Your task to perform on an android device: install app "Adobe Acrobat Reader" Image 0: 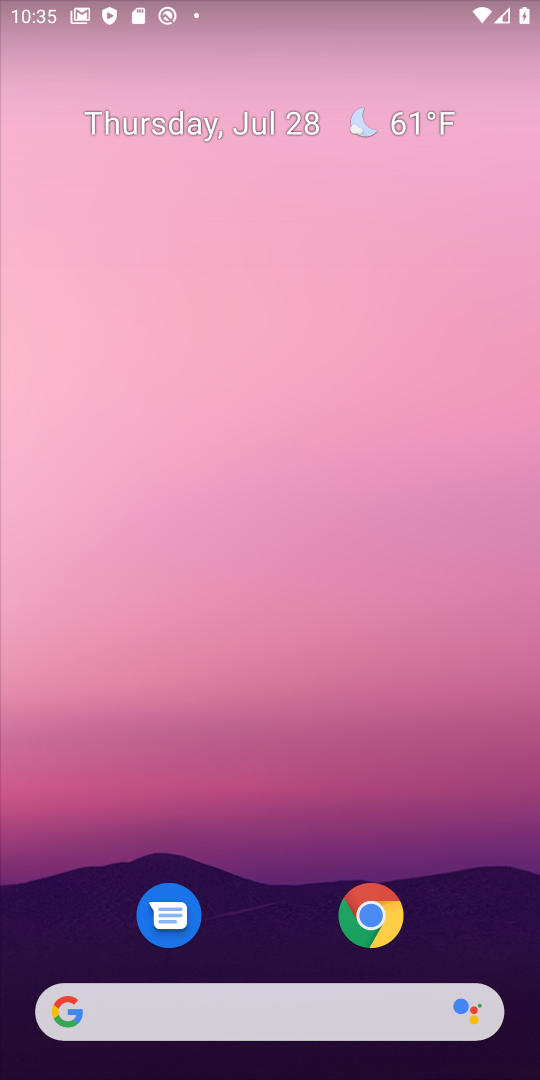
Step 0: press home button
Your task to perform on an android device: install app "Adobe Acrobat Reader" Image 1: 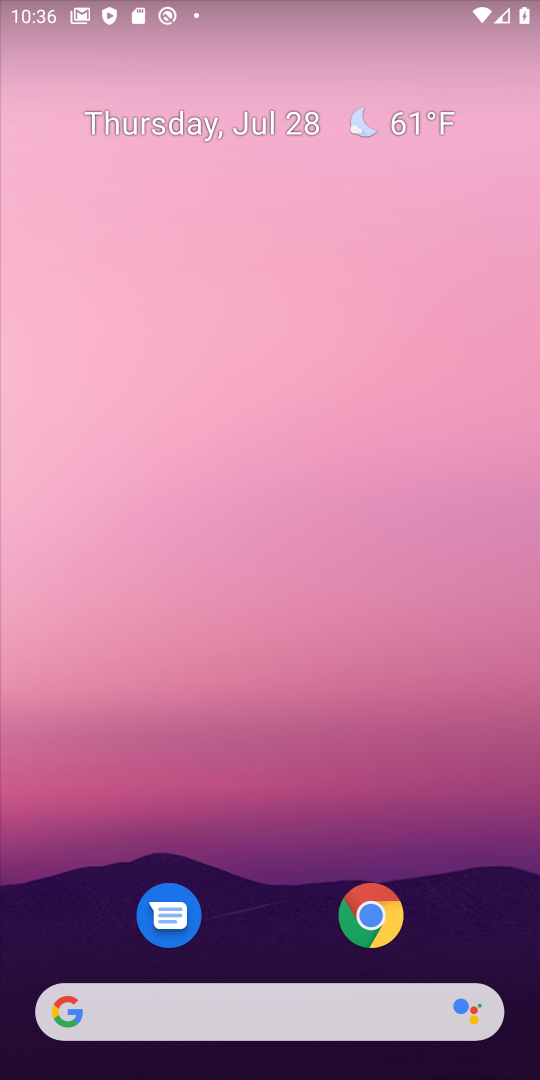
Step 1: drag from (480, 966) to (143, 146)
Your task to perform on an android device: install app "Adobe Acrobat Reader" Image 2: 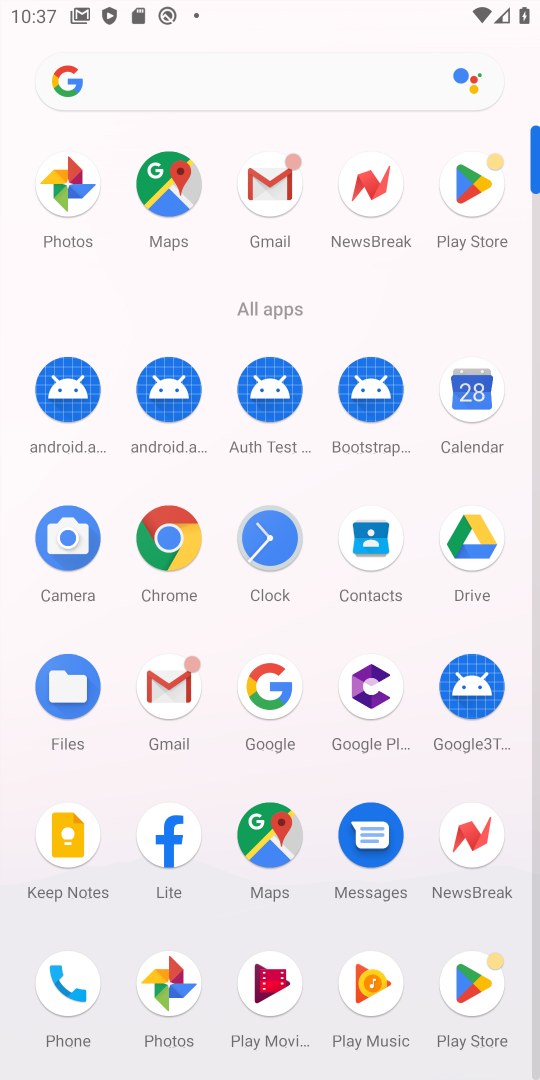
Step 2: click (493, 970)
Your task to perform on an android device: install app "Adobe Acrobat Reader" Image 3: 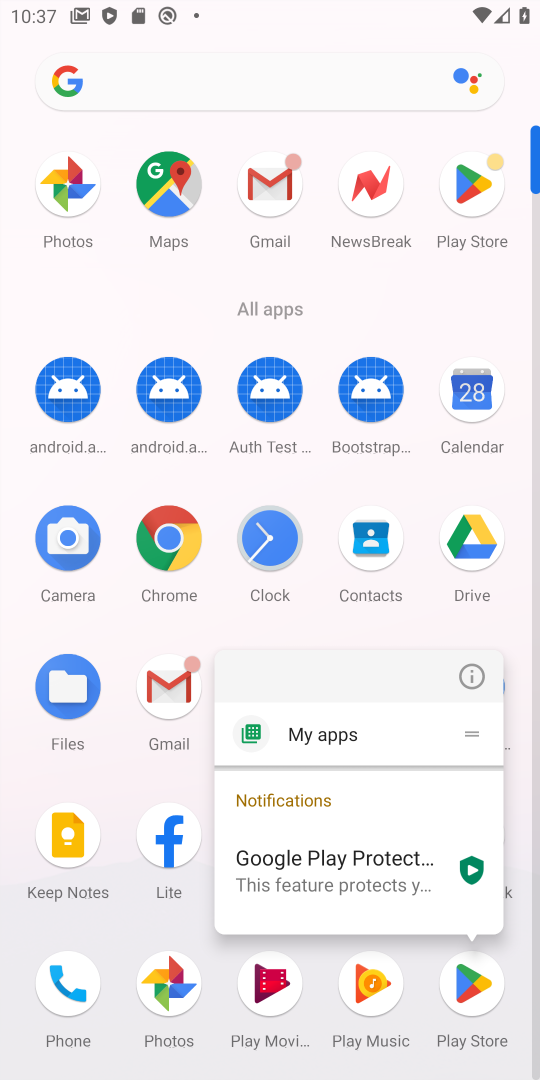
Step 3: click (472, 200)
Your task to perform on an android device: install app "Adobe Acrobat Reader" Image 4: 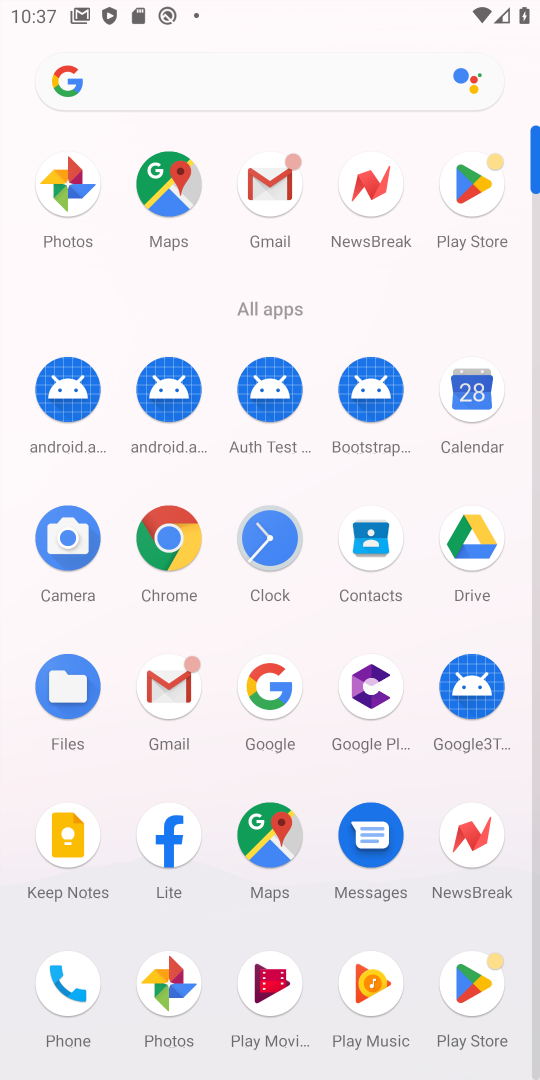
Step 4: click (472, 200)
Your task to perform on an android device: install app "Adobe Acrobat Reader" Image 5: 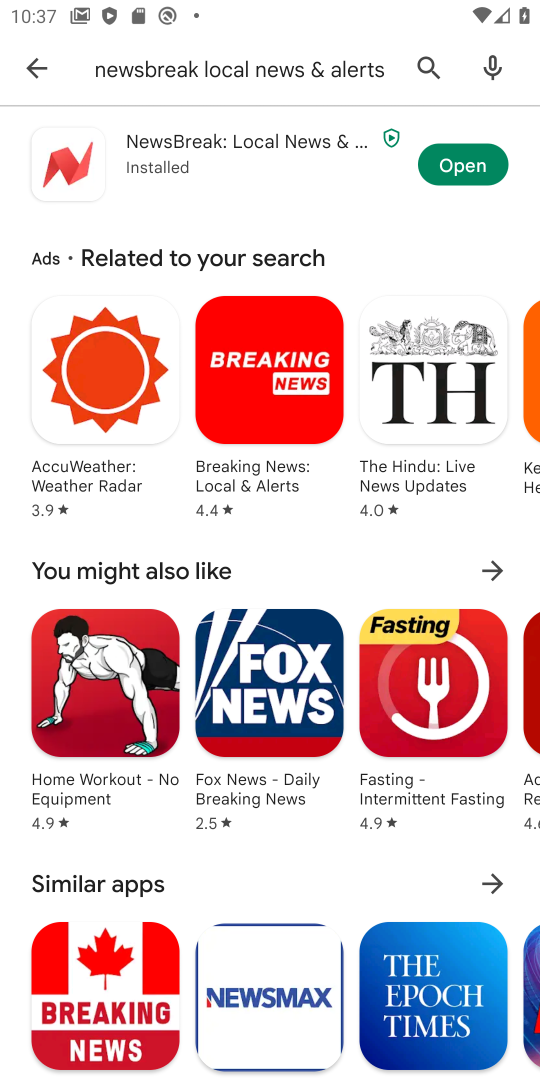
Step 5: click (431, 69)
Your task to perform on an android device: install app "Adobe Acrobat Reader" Image 6: 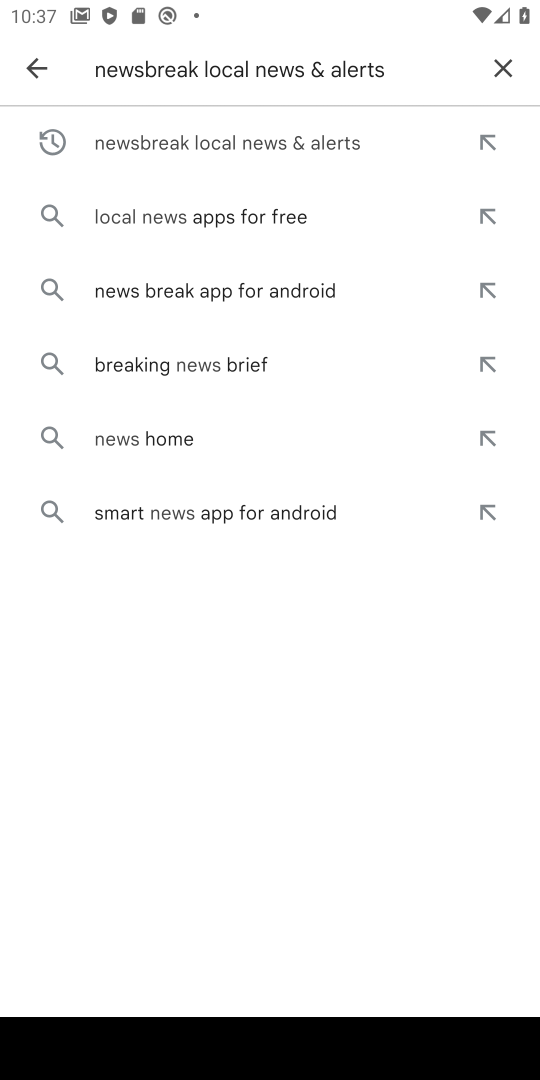
Step 6: click (512, 64)
Your task to perform on an android device: install app "Adobe Acrobat Reader" Image 7: 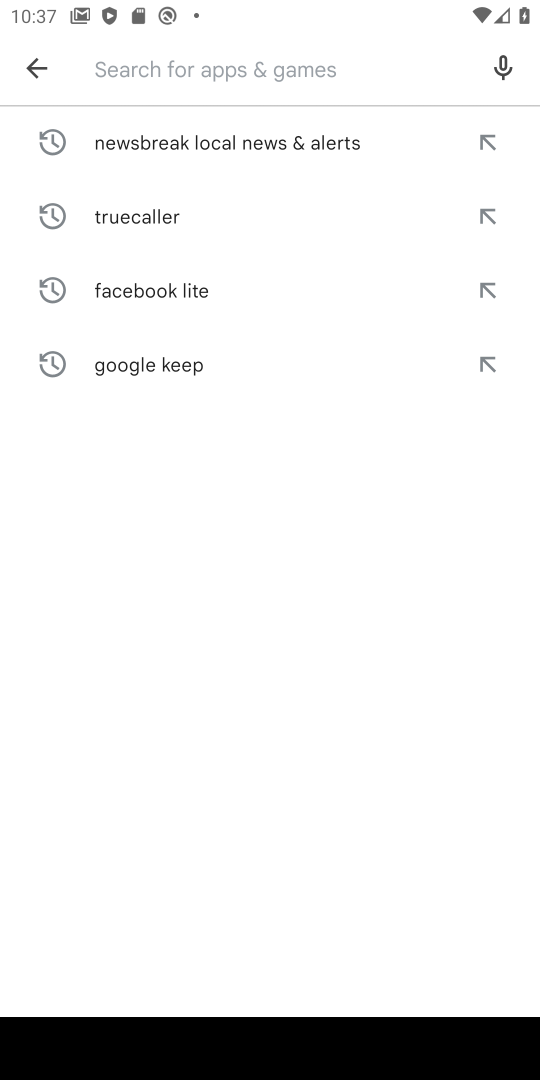
Step 7: type "Adobe Acrobat Reader"
Your task to perform on an android device: install app "Adobe Acrobat Reader" Image 8: 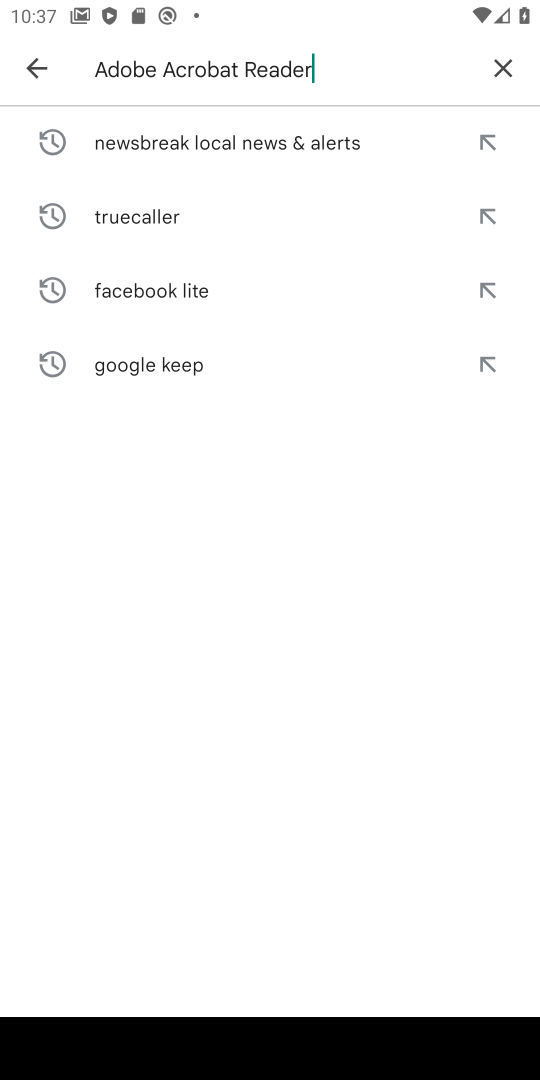
Step 8: type ""
Your task to perform on an android device: install app "Adobe Acrobat Reader" Image 9: 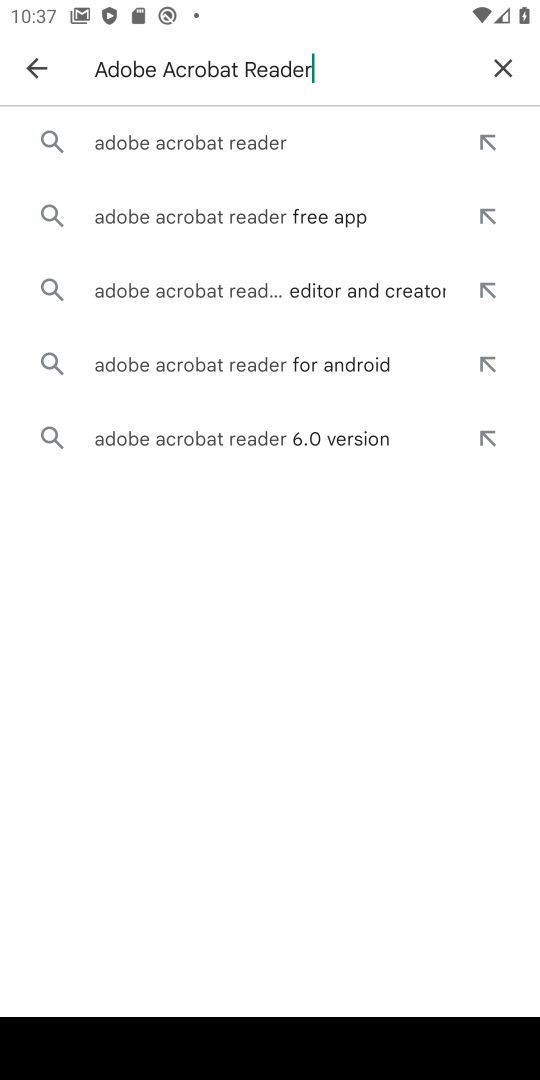
Step 9: click (140, 145)
Your task to perform on an android device: install app "Adobe Acrobat Reader" Image 10: 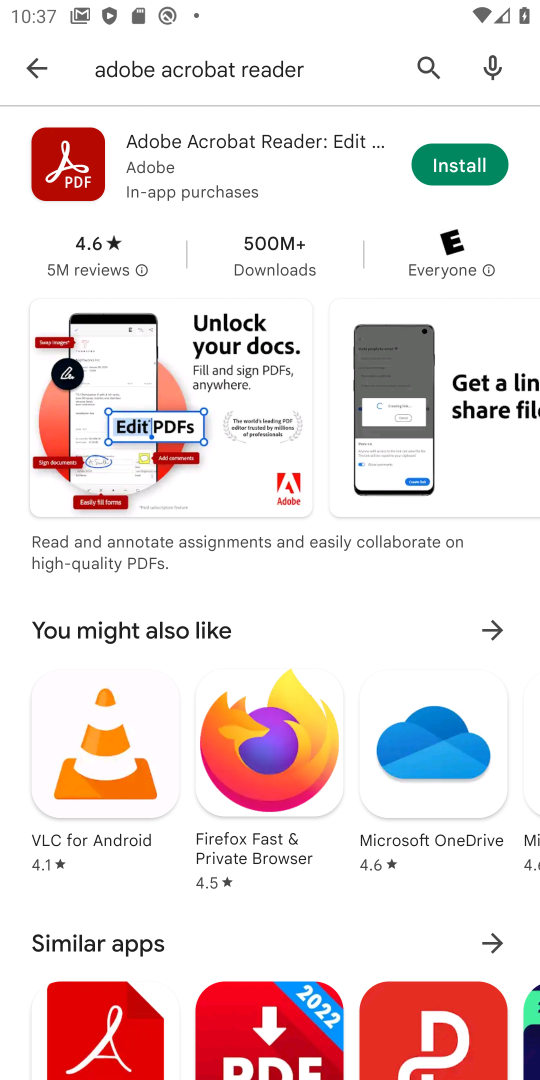
Step 10: click (442, 180)
Your task to perform on an android device: install app "Adobe Acrobat Reader" Image 11: 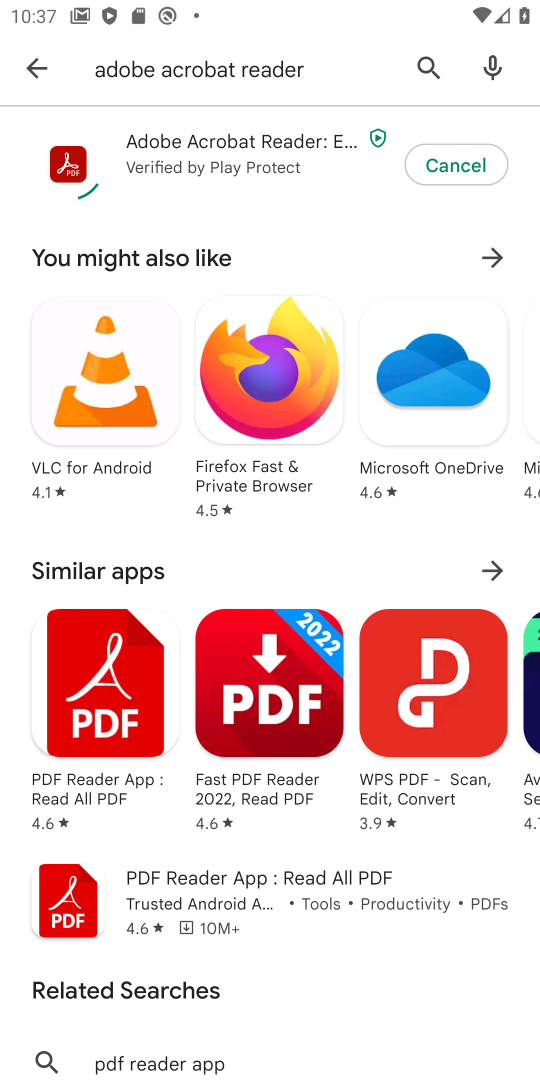
Step 11: click (234, 155)
Your task to perform on an android device: install app "Adobe Acrobat Reader" Image 12: 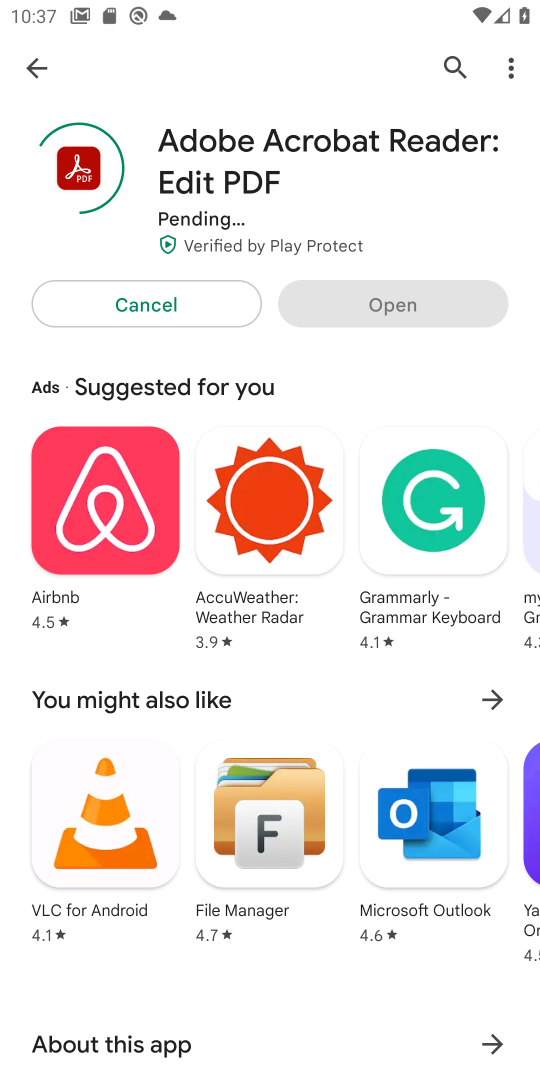
Step 12: drag from (392, 989) to (261, 519)
Your task to perform on an android device: install app "Adobe Acrobat Reader" Image 13: 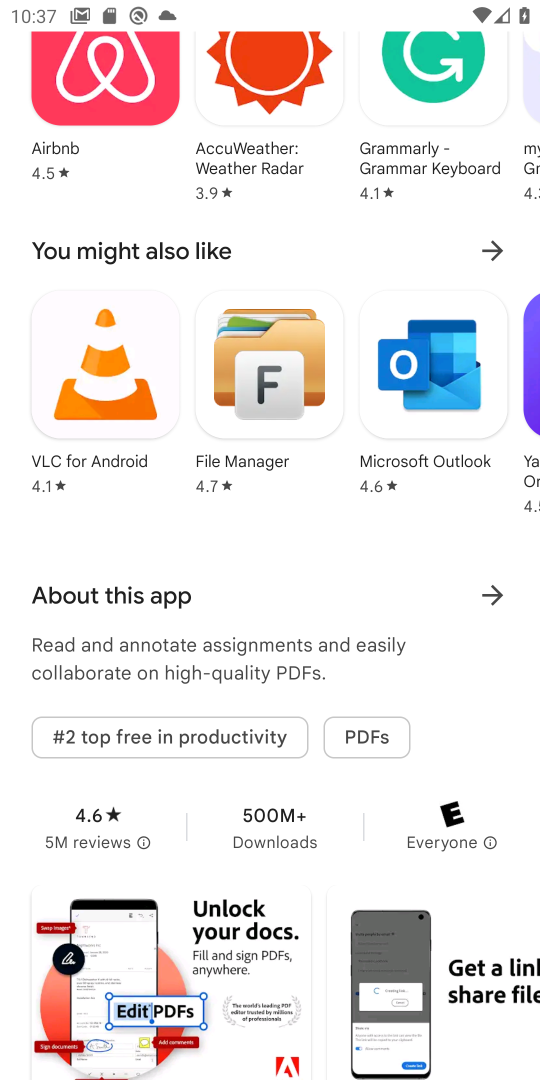
Step 13: drag from (203, 540) to (211, 962)
Your task to perform on an android device: install app "Adobe Acrobat Reader" Image 14: 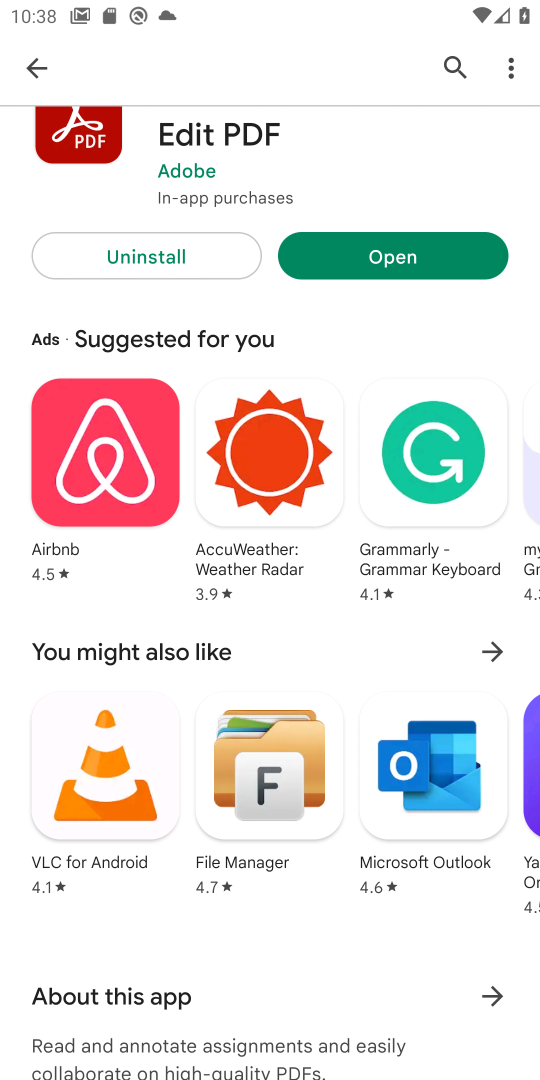
Step 14: click (424, 258)
Your task to perform on an android device: install app "Adobe Acrobat Reader" Image 15: 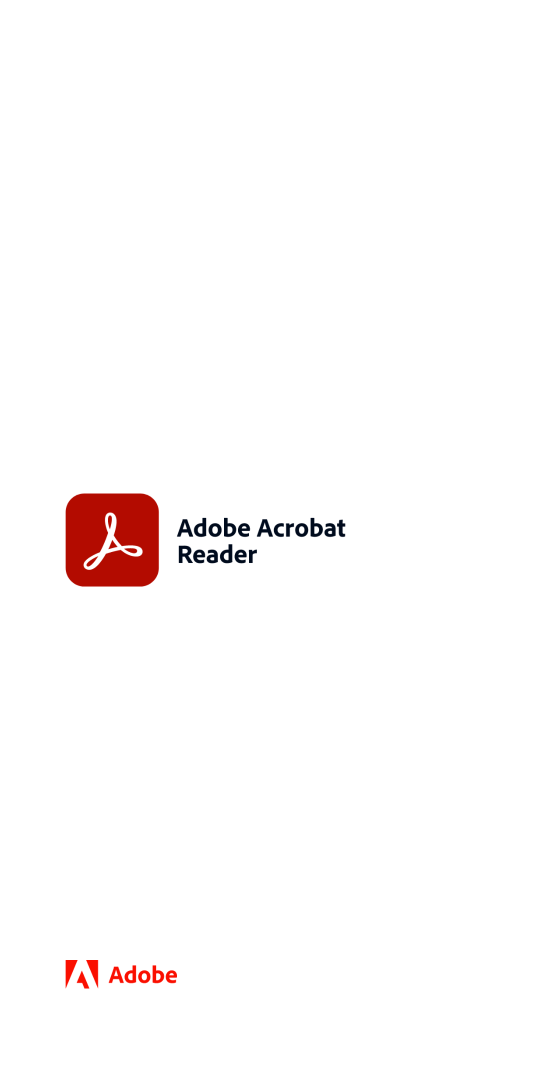
Step 15: task complete